Your task to perform on an android device: all mails in gmail Image 0: 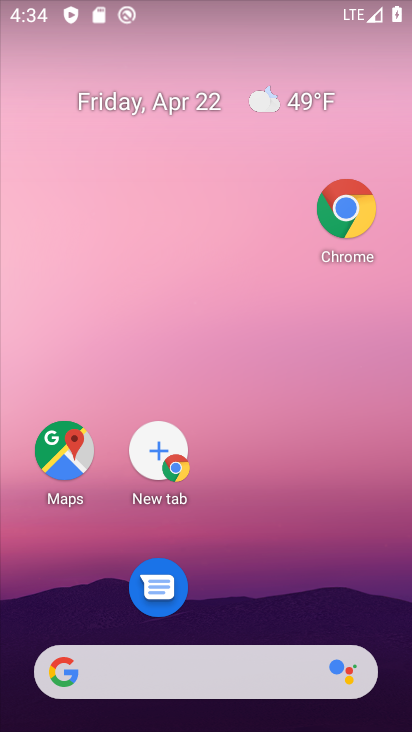
Step 0: drag from (257, 629) to (295, 47)
Your task to perform on an android device: all mails in gmail Image 1: 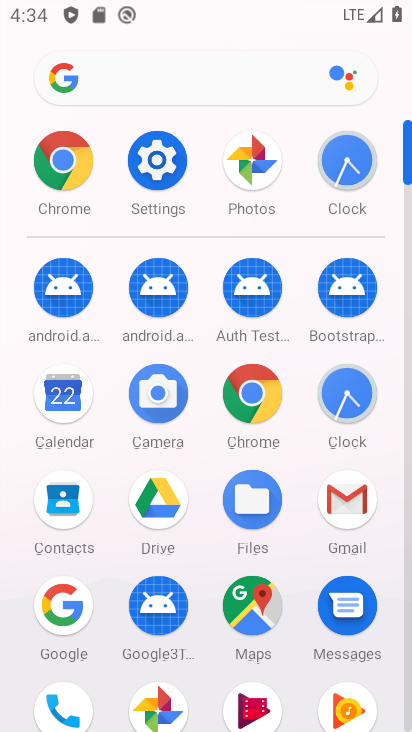
Step 1: click (345, 515)
Your task to perform on an android device: all mails in gmail Image 2: 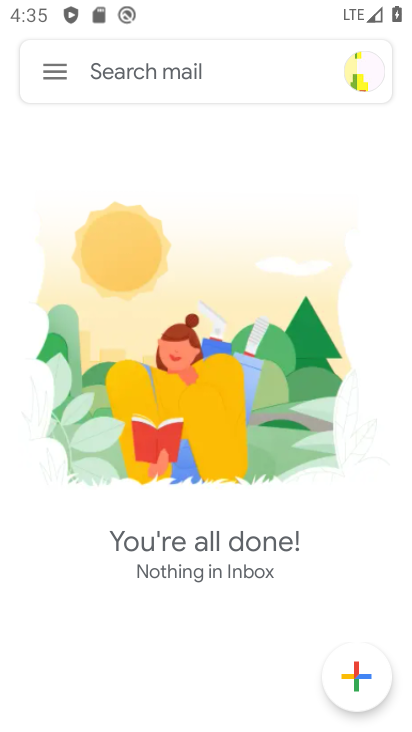
Step 2: click (31, 69)
Your task to perform on an android device: all mails in gmail Image 3: 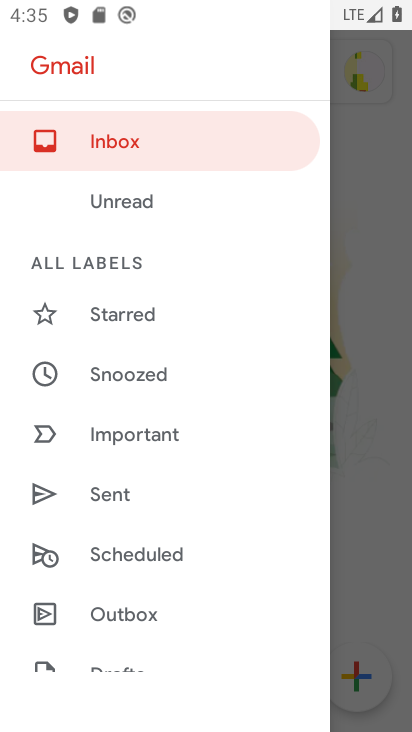
Step 3: drag from (165, 643) to (259, 179)
Your task to perform on an android device: all mails in gmail Image 4: 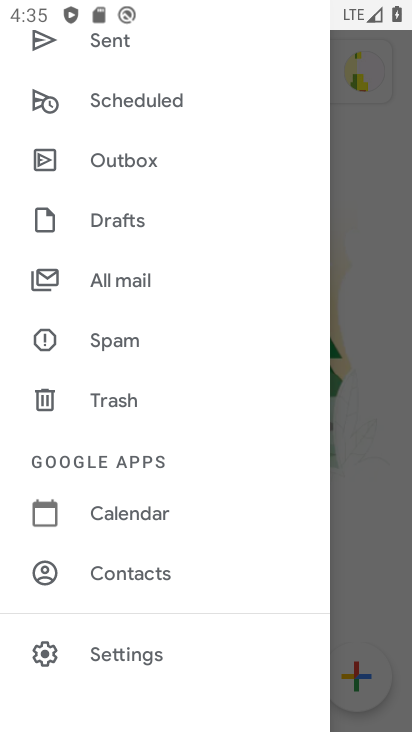
Step 4: drag from (130, 577) to (178, 151)
Your task to perform on an android device: all mails in gmail Image 5: 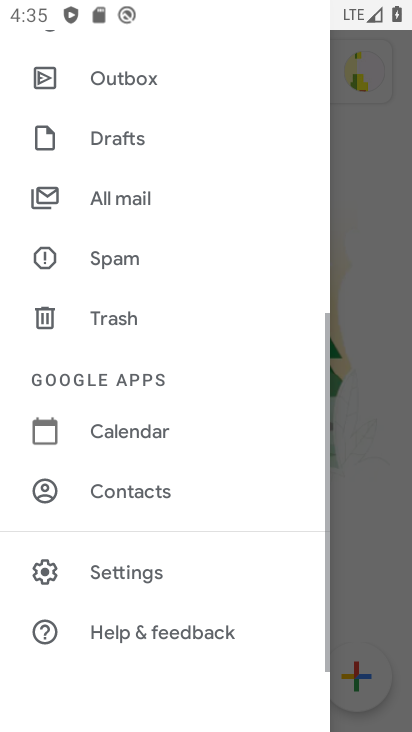
Step 5: click (166, 192)
Your task to perform on an android device: all mails in gmail Image 6: 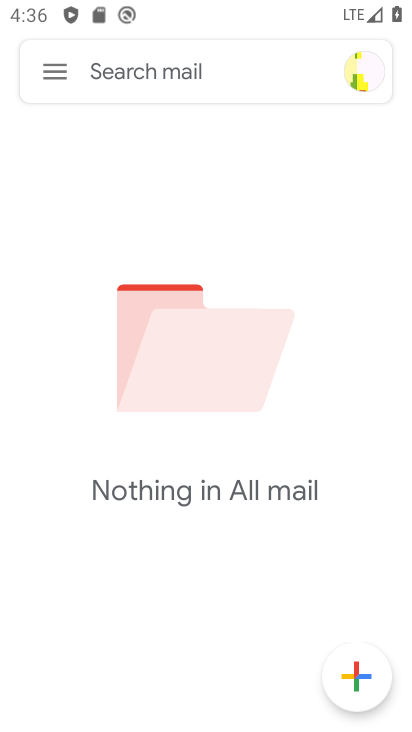
Step 6: task complete